Your task to perform on an android device: What is the recent news? Image 0: 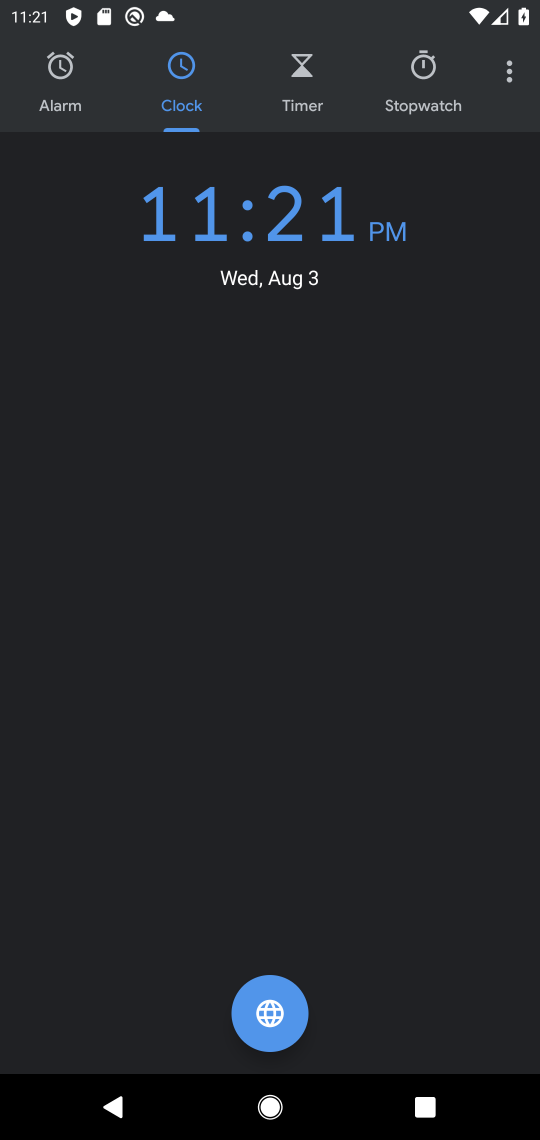
Step 0: press home button
Your task to perform on an android device: What is the recent news? Image 1: 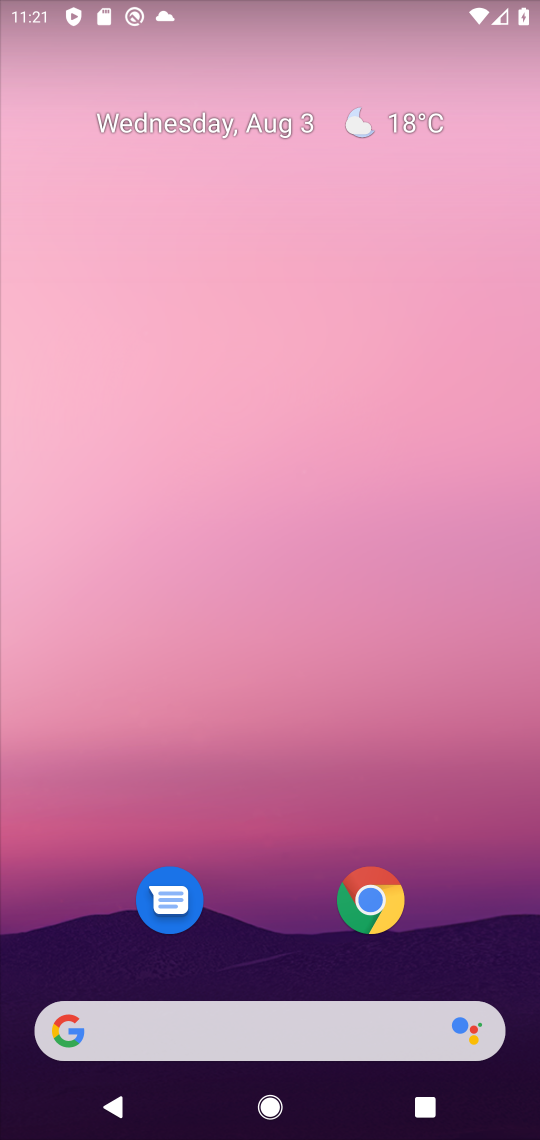
Step 1: click (71, 1033)
Your task to perform on an android device: What is the recent news? Image 2: 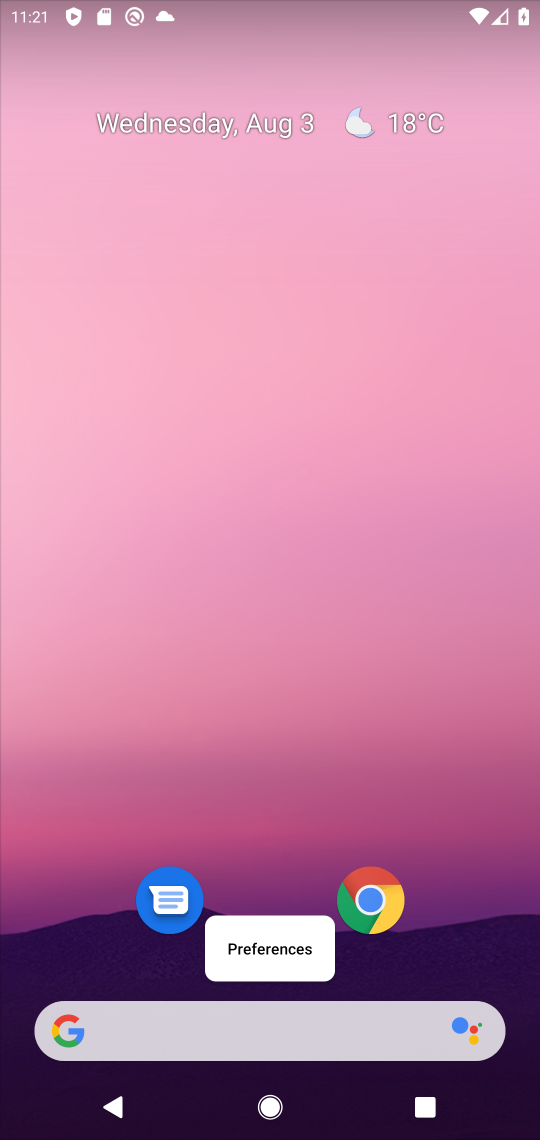
Step 2: click (73, 1031)
Your task to perform on an android device: What is the recent news? Image 3: 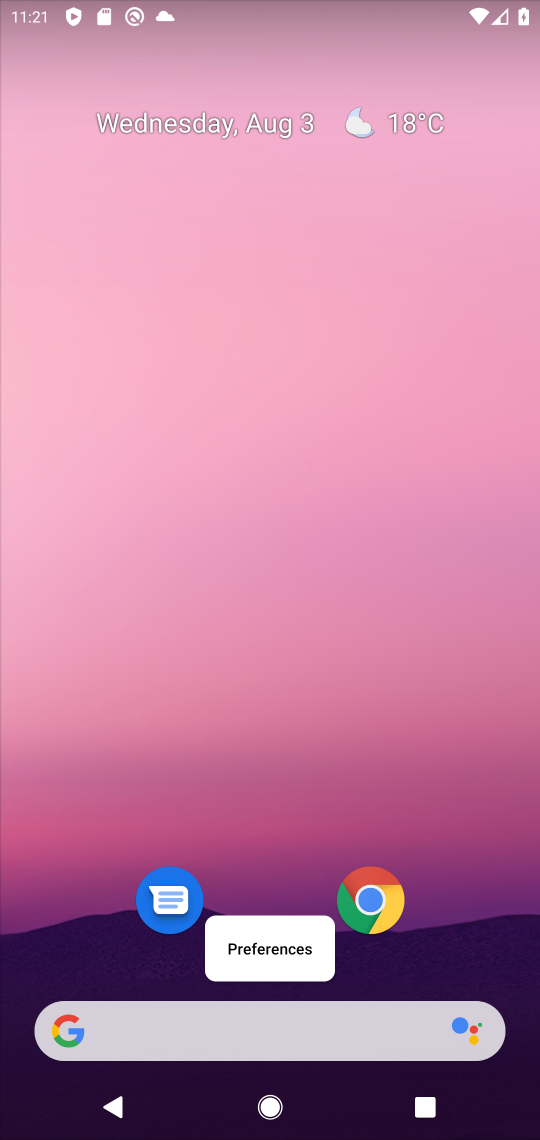
Step 3: click (73, 1031)
Your task to perform on an android device: What is the recent news? Image 4: 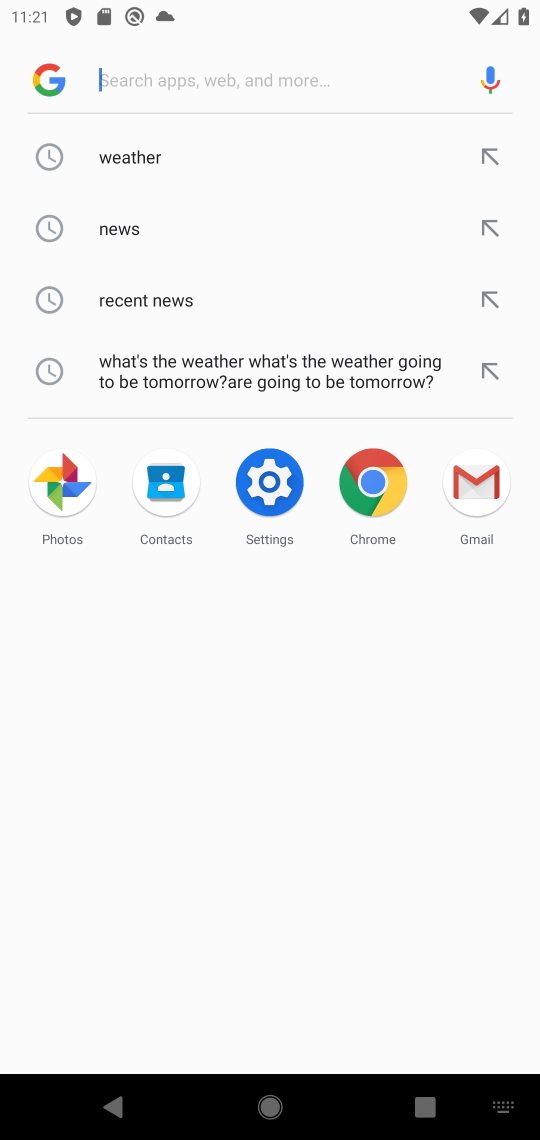
Step 4: click (167, 295)
Your task to perform on an android device: What is the recent news? Image 5: 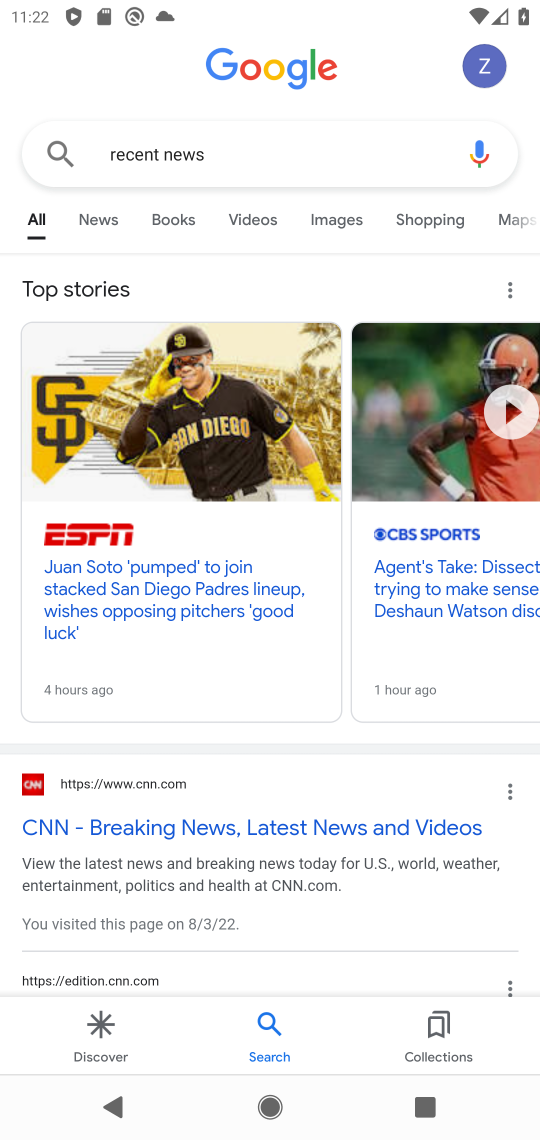
Step 5: task complete